Your task to perform on an android device: Go to Google maps Image 0: 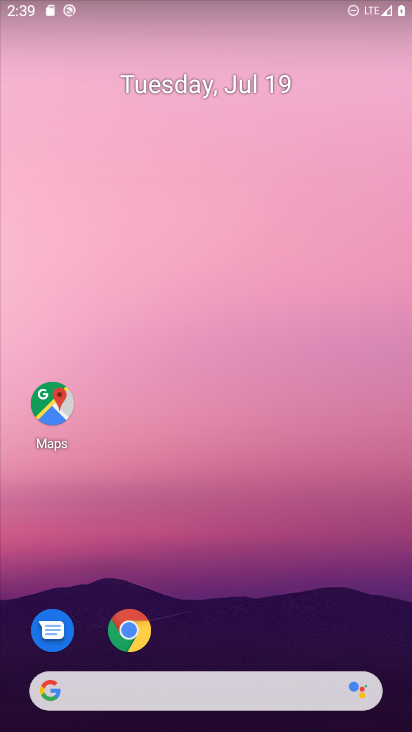
Step 0: click (51, 400)
Your task to perform on an android device: Go to Google maps Image 1: 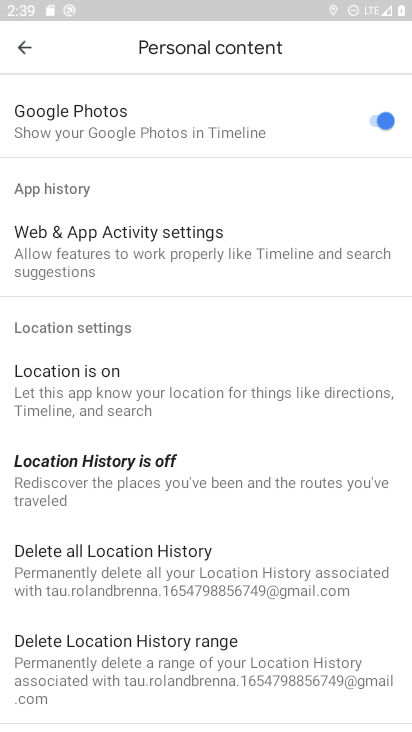
Step 1: task complete